Your task to perform on an android device: Search for pizza restaurants on Maps Image 0: 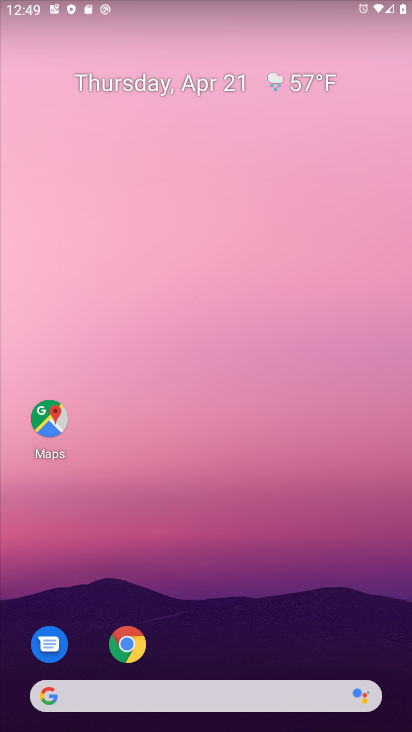
Step 0: drag from (206, 669) to (139, 41)
Your task to perform on an android device: Search for pizza restaurants on Maps Image 1: 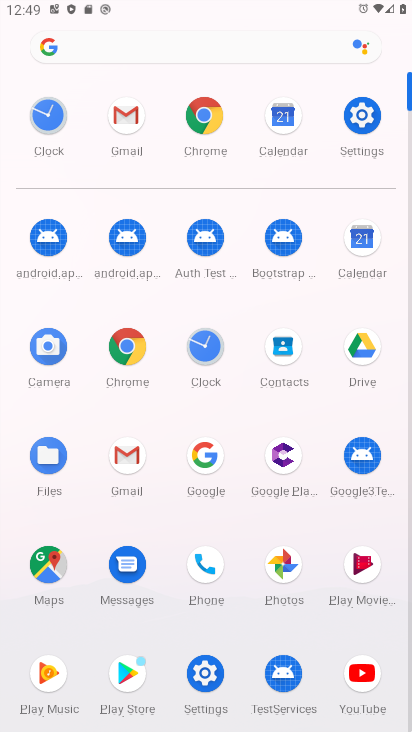
Step 1: click (44, 567)
Your task to perform on an android device: Search for pizza restaurants on Maps Image 2: 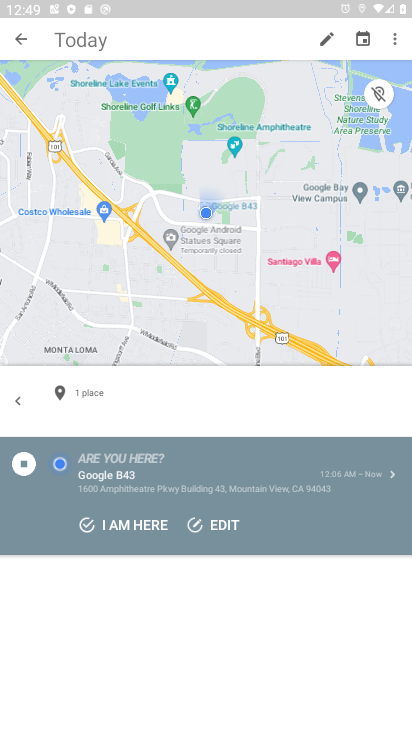
Step 2: click (24, 42)
Your task to perform on an android device: Search for pizza restaurants on Maps Image 3: 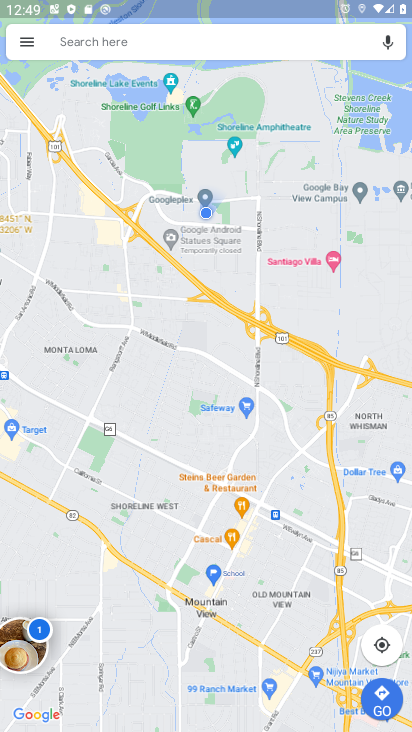
Step 3: click (137, 45)
Your task to perform on an android device: Search for pizza restaurants on Maps Image 4: 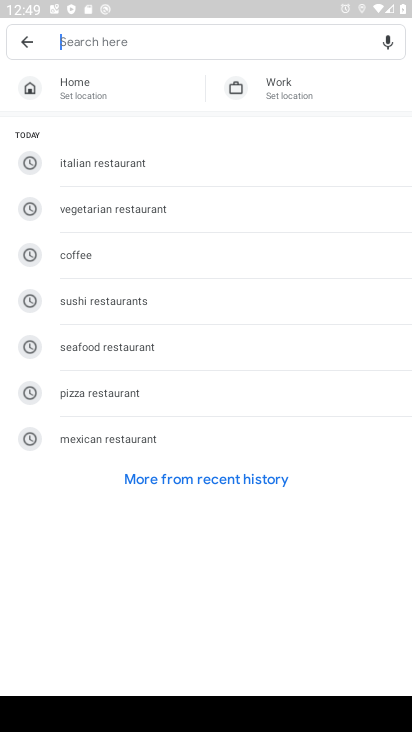
Step 4: click (115, 384)
Your task to perform on an android device: Search for pizza restaurants on Maps Image 5: 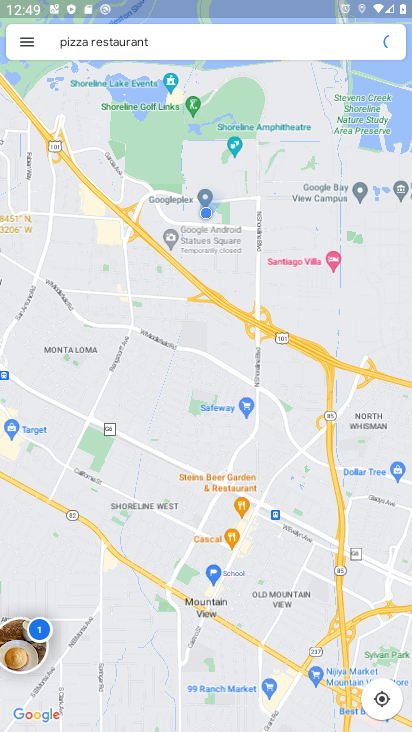
Step 5: task complete